Your task to perform on an android device: allow notifications from all sites in the chrome app Image 0: 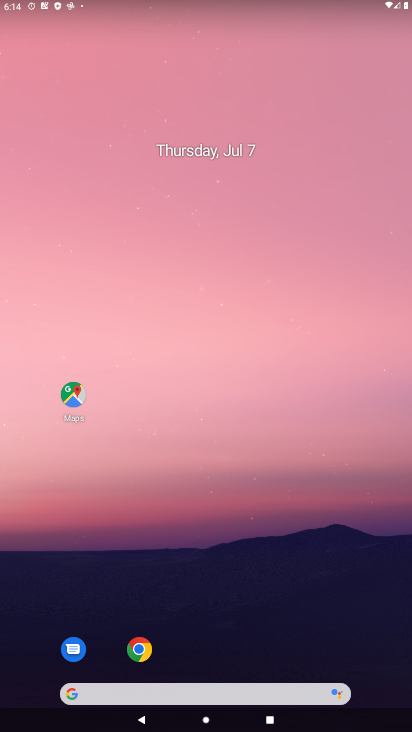
Step 0: drag from (345, 648) to (208, 115)
Your task to perform on an android device: allow notifications from all sites in the chrome app Image 1: 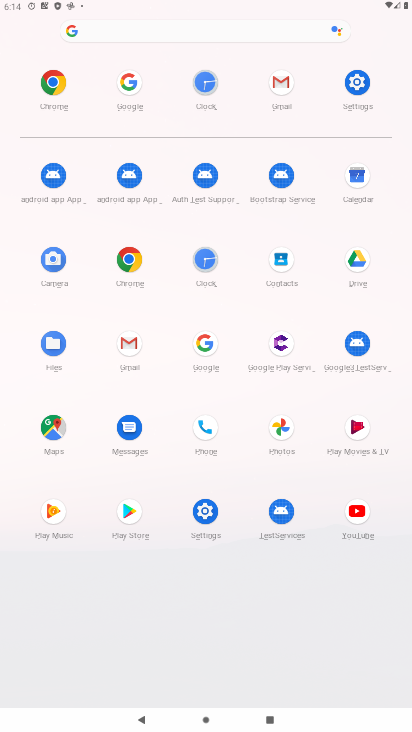
Step 1: click (117, 257)
Your task to perform on an android device: allow notifications from all sites in the chrome app Image 2: 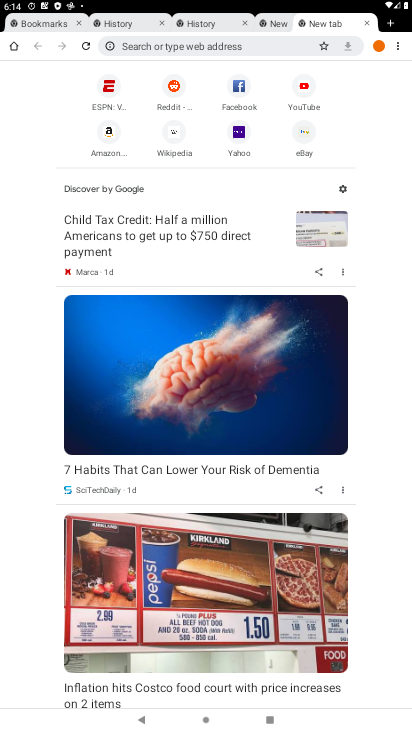
Step 2: click (398, 42)
Your task to perform on an android device: allow notifications from all sites in the chrome app Image 3: 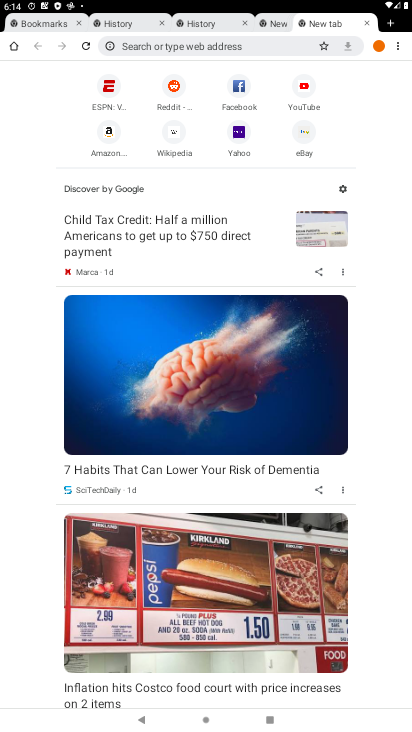
Step 3: click (398, 50)
Your task to perform on an android device: allow notifications from all sites in the chrome app Image 4: 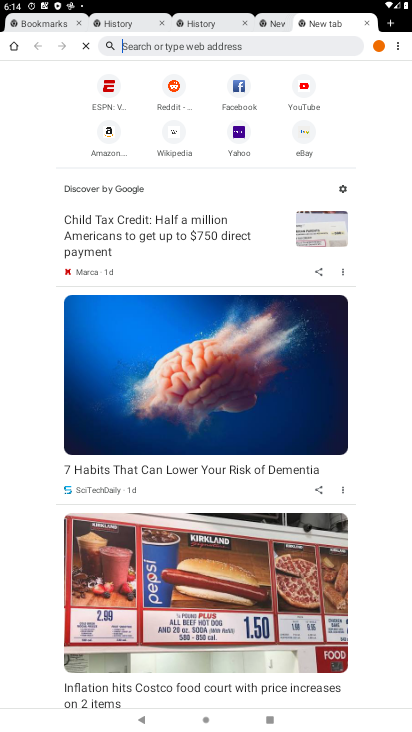
Step 4: click (398, 50)
Your task to perform on an android device: allow notifications from all sites in the chrome app Image 5: 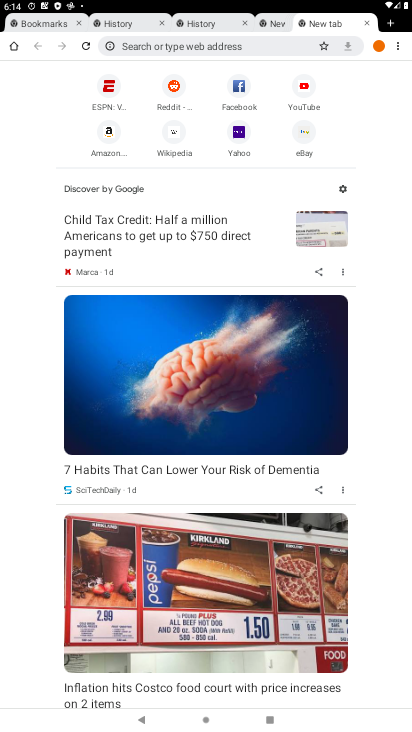
Step 5: click (397, 47)
Your task to perform on an android device: allow notifications from all sites in the chrome app Image 6: 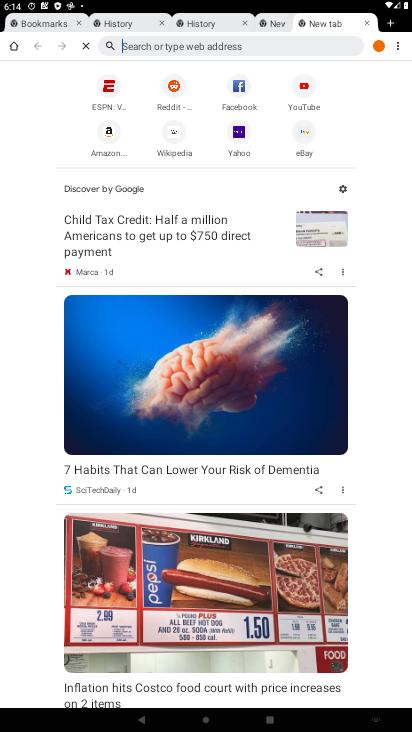
Step 6: click (397, 47)
Your task to perform on an android device: allow notifications from all sites in the chrome app Image 7: 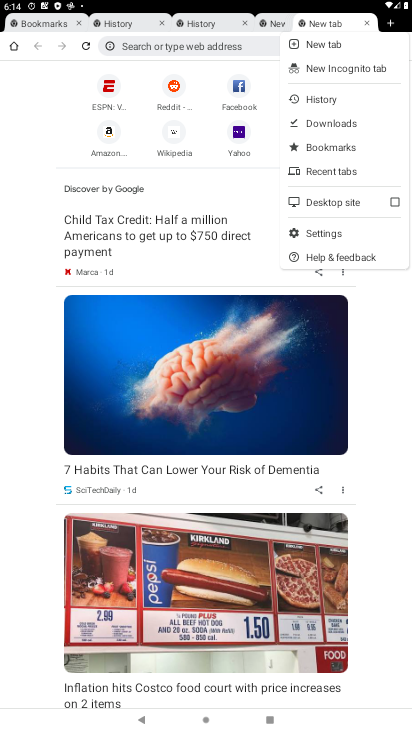
Step 7: click (321, 237)
Your task to perform on an android device: allow notifications from all sites in the chrome app Image 8: 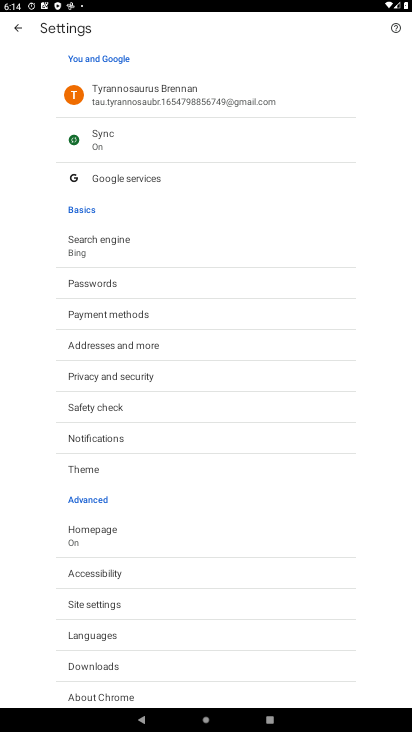
Step 8: click (117, 439)
Your task to perform on an android device: allow notifications from all sites in the chrome app Image 9: 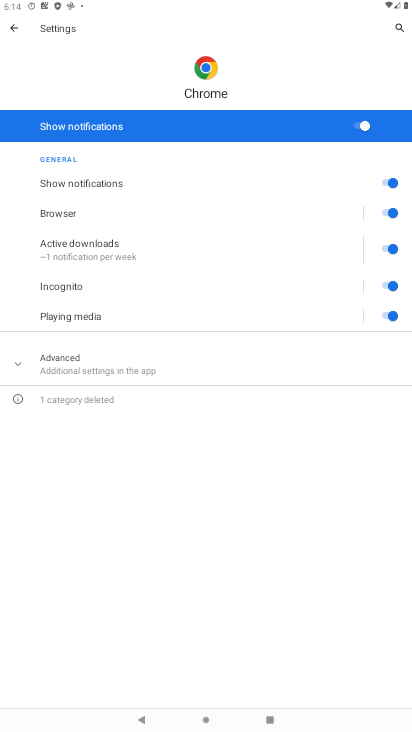
Step 9: task complete